Your task to perform on an android device: What's on my calendar today? Image 0: 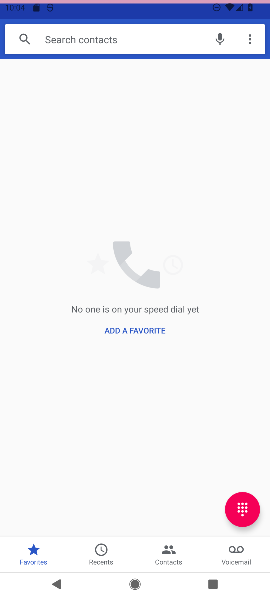
Step 0: click (233, 207)
Your task to perform on an android device: What's on my calendar today? Image 1: 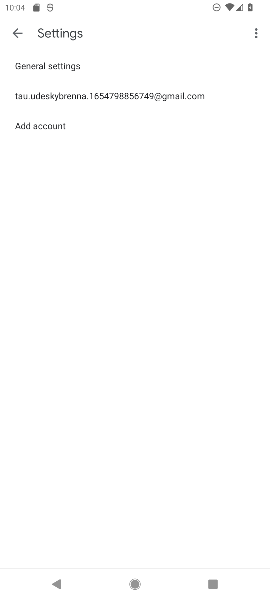
Step 1: press home button
Your task to perform on an android device: What's on my calendar today? Image 2: 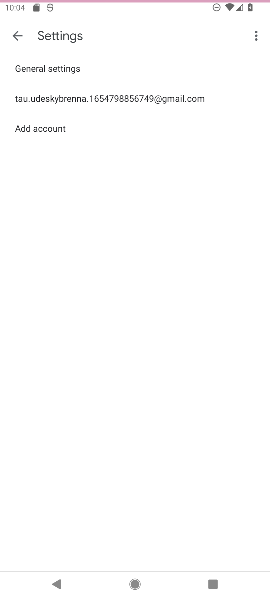
Step 2: drag from (158, 529) to (187, 157)
Your task to perform on an android device: What's on my calendar today? Image 3: 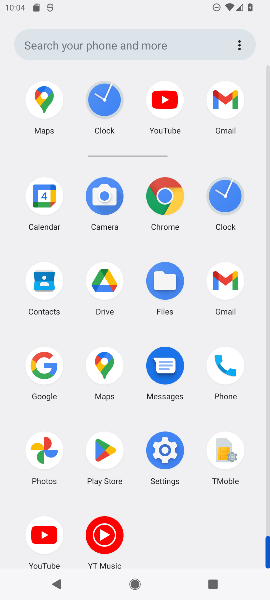
Step 3: drag from (162, 506) to (164, 260)
Your task to perform on an android device: What's on my calendar today? Image 4: 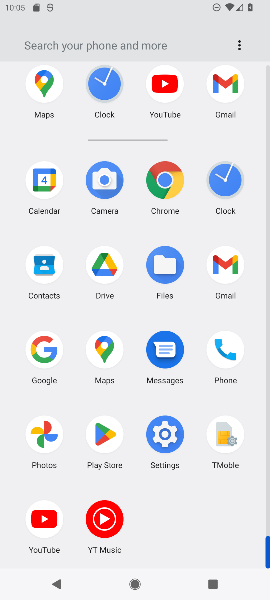
Step 4: click (36, 186)
Your task to perform on an android device: What's on my calendar today? Image 5: 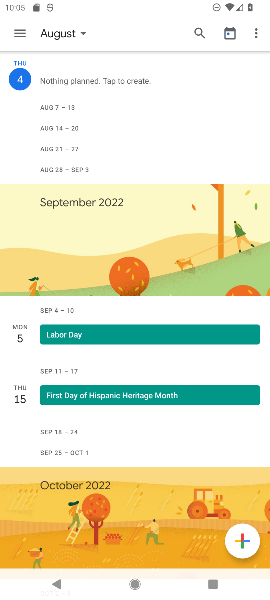
Step 5: click (83, 19)
Your task to perform on an android device: What's on my calendar today? Image 6: 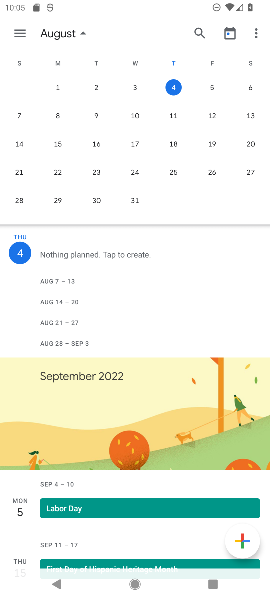
Step 6: click (234, 32)
Your task to perform on an android device: What's on my calendar today? Image 7: 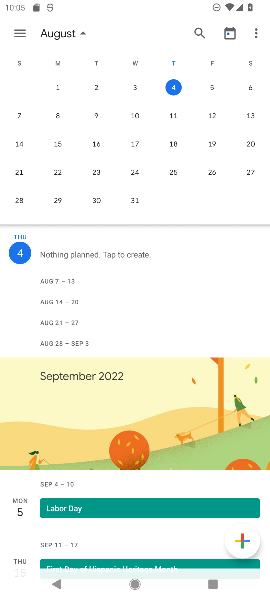
Step 7: click (169, 81)
Your task to perform on an android device: What's on my calendar today? Image 8: 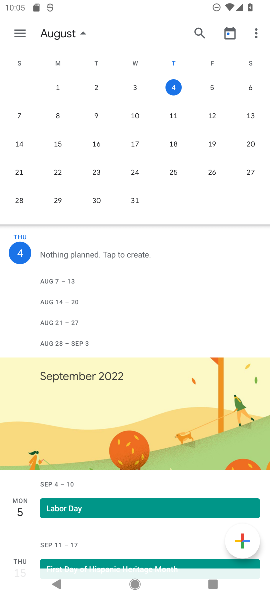
Step 8: task complete